Your task to perform on an android device: change the clock display to show seconds Image 0: 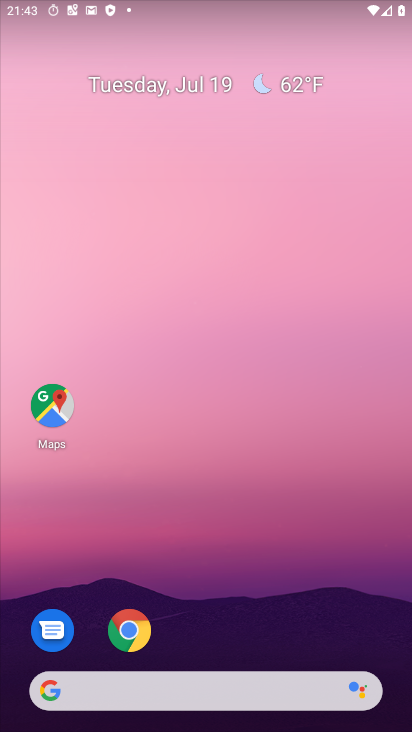
Step 0: drag from (107, 505) to (182, 243)
Your task to perform on an android device: change the clock display to show seconds Image 1: 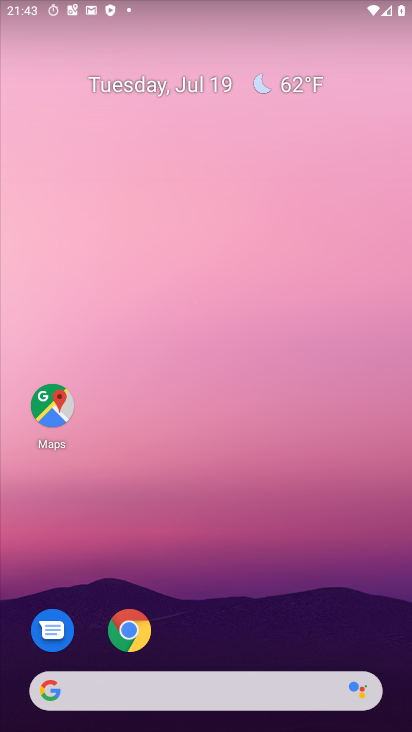
Step 1: drag from (24, 719) to (197, 125)
Your task to perform on an android device: change the clock display to show seconds Image 2: 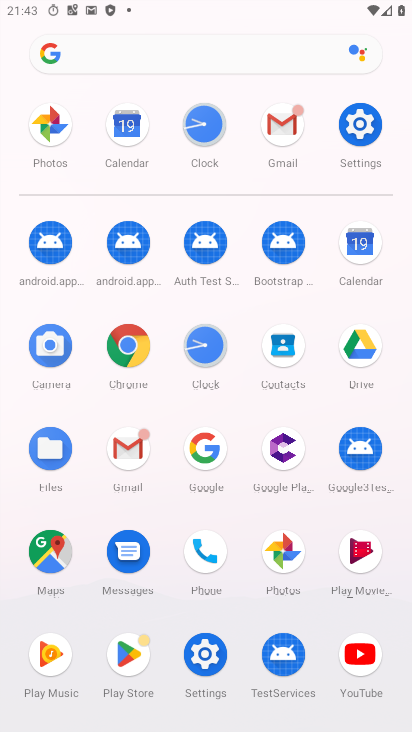
Step 2: click (219, 363)
Your task to perform on an android device: change the clock display to show seconds Image 3: 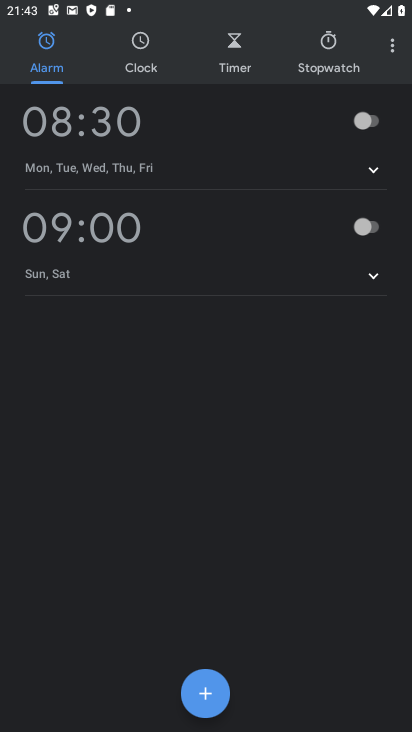
Step 3: click (395, 44)
Your task to perform on an android device: change the clock display to show seconds Image 4: 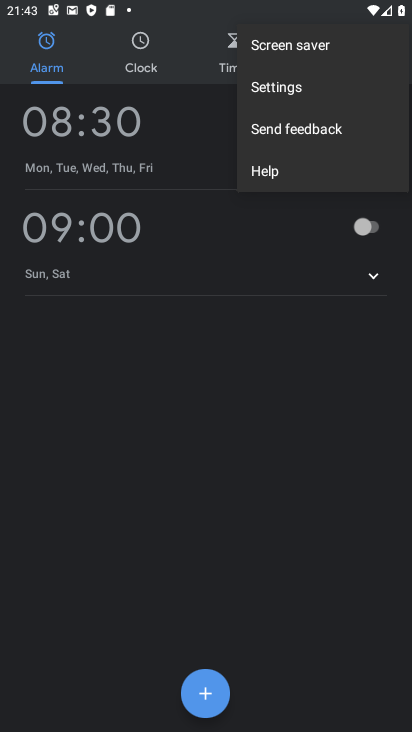
Step 4: click (271, 94)
Your task to perform on an android device: change the clock display to show seconds Image 5: 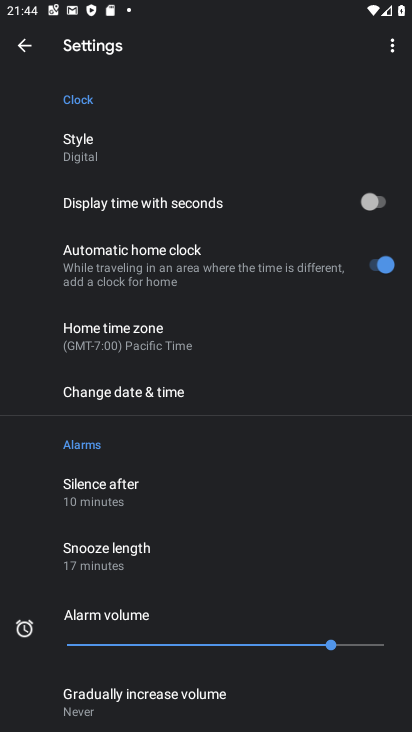
Step 5: click (387, 190)
Your task to perform on an android device: change the clock display to show seconds Image 6: 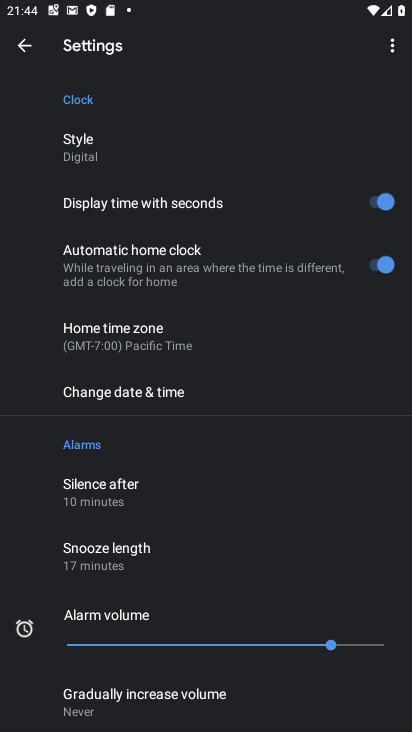
Step 6: task complete